Your task to perform on an android device: Open Yahoo.com Image 0: 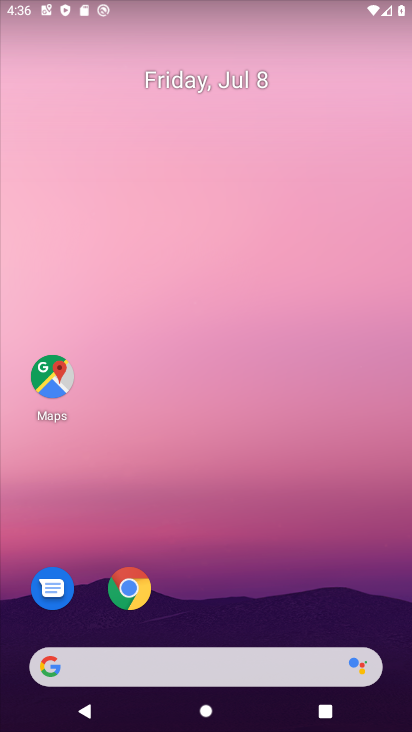
Step 0: drag from (251, 591) to (265, 2)
Your task to perform on an android device: Open Yahoo.com Image 1: 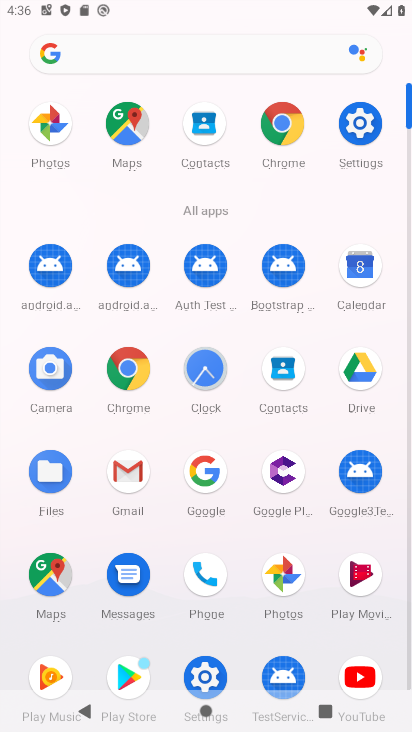
Step 1: click (132, 363)
Your task to perform on an android device: Open Yahoo.com Image 2: 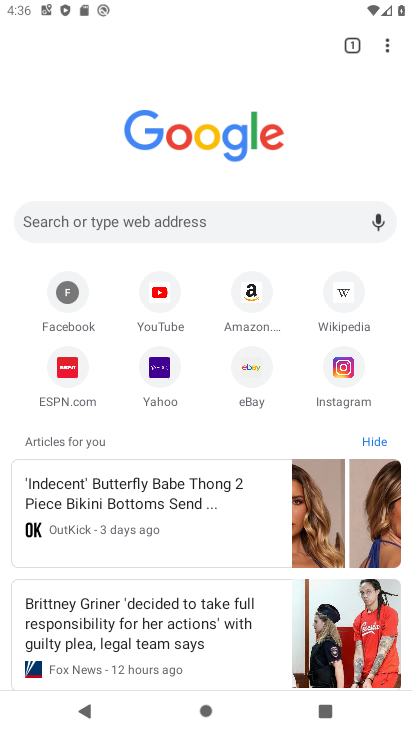
Step 2: click (170, 373)
Your task to perform on an android device: Open Yahoo.com Image 3: 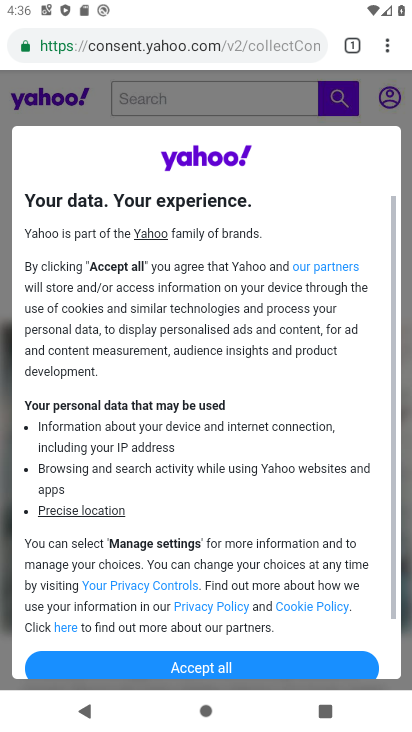
Step 3: task complete